Your task to perform on an android device: clear all cookies in the chrome app Image 0: 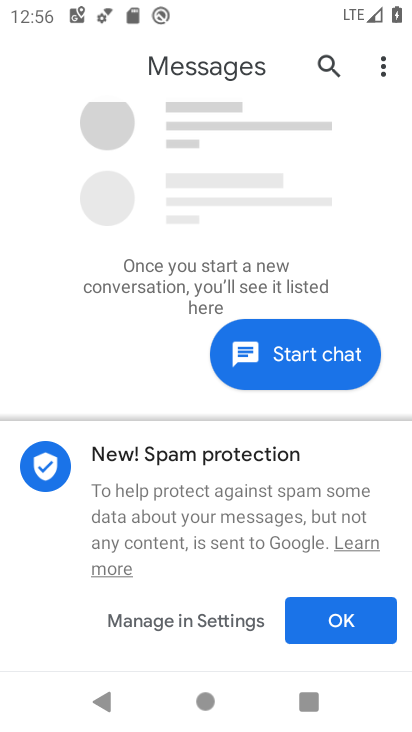
Step 0: press home button
Your task to perform on an android device: clear all cookies in the chrome app Image 1: 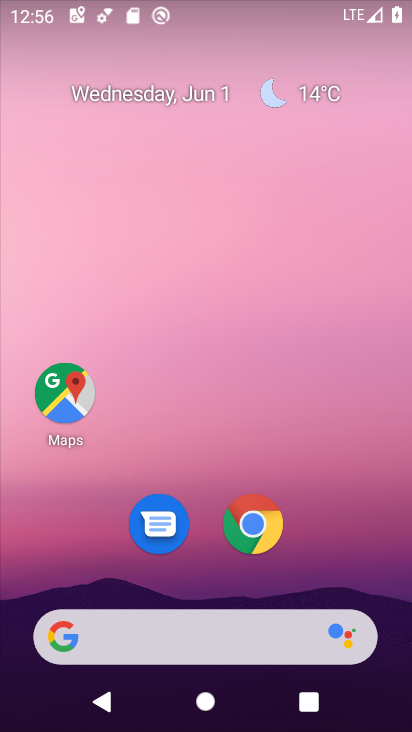
Step 1: click (256, 530)
Your task to perform on an android device: clear all cookies in the chrome app Image 2: 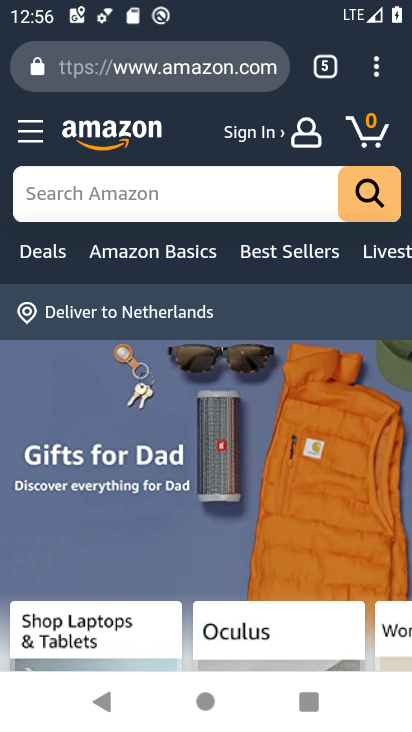
Step 2: click (374, 75)
Your task to perform on an android device: clear all cookies in the chrome app Image 3: 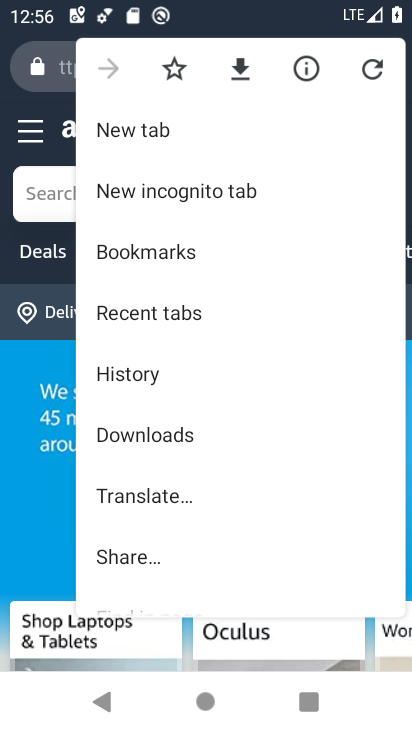
Step 3: drag from (188, 526) to (224, 269)
Your task to perform on an android device: clear all cookies in the chrome app Image 4: 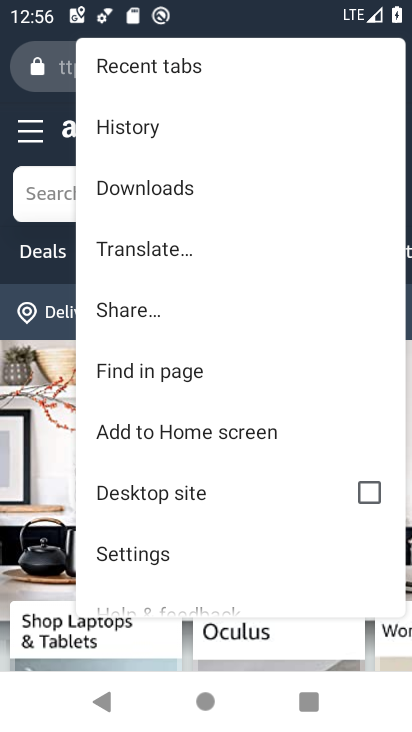
Step 4: click (175, 132)
Your task to perform on an android device: clear all cookies in the chrome app Image 5: 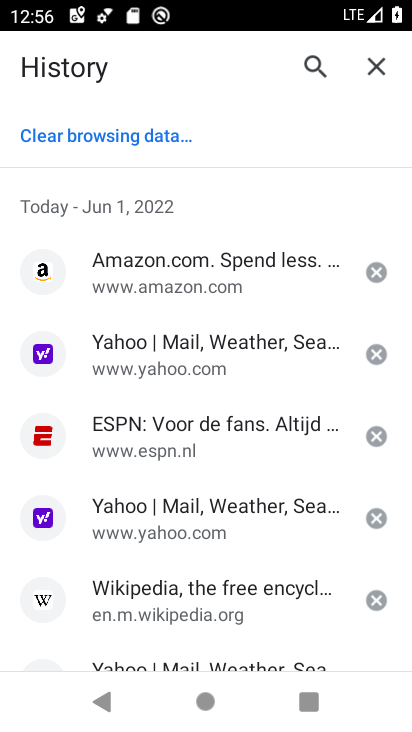
Step 5: click (169, 136)
Your task to perform on an android device: clear all cookies in the chrome app Image 6: 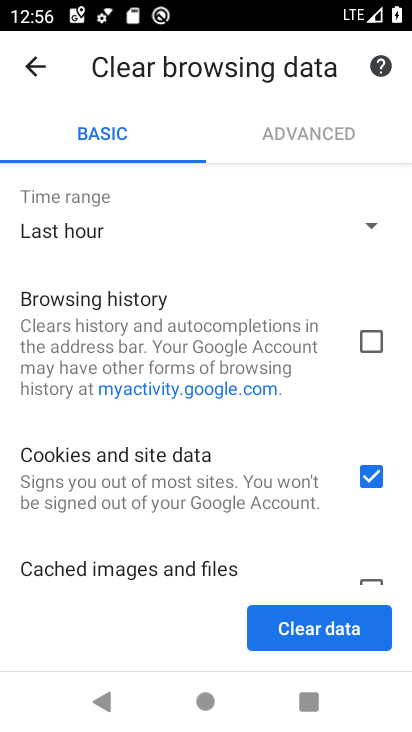
Step 6: drag from (265, 548) to (265, 476)
Your task to perform on an android device: clear all cookies in the chrome app Image 7: 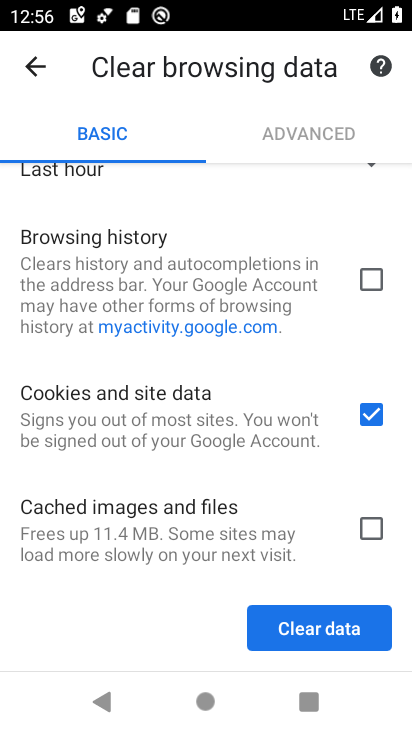
Step 7: click (311, 632)
Your task to perform on an android device: clear all cookies in the chrome app Image 8: 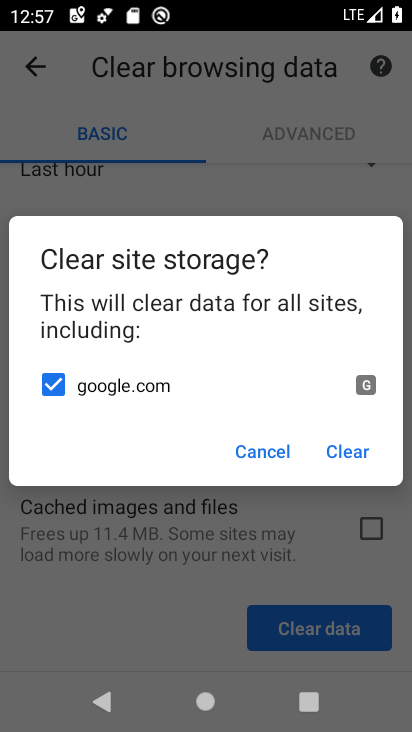
Step 8: click (361, 449)
Your task to perform on an android device: clear all cookies in the chrome app Image 9: 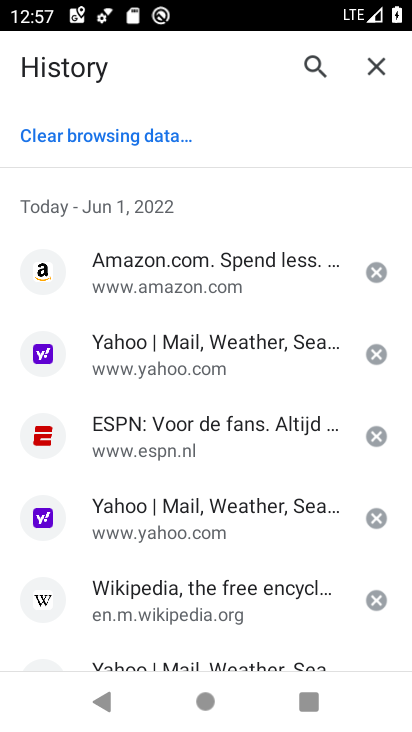
Step 9: task complete